Your task to perform on an android device: see creations saved in the google photos Image 0: 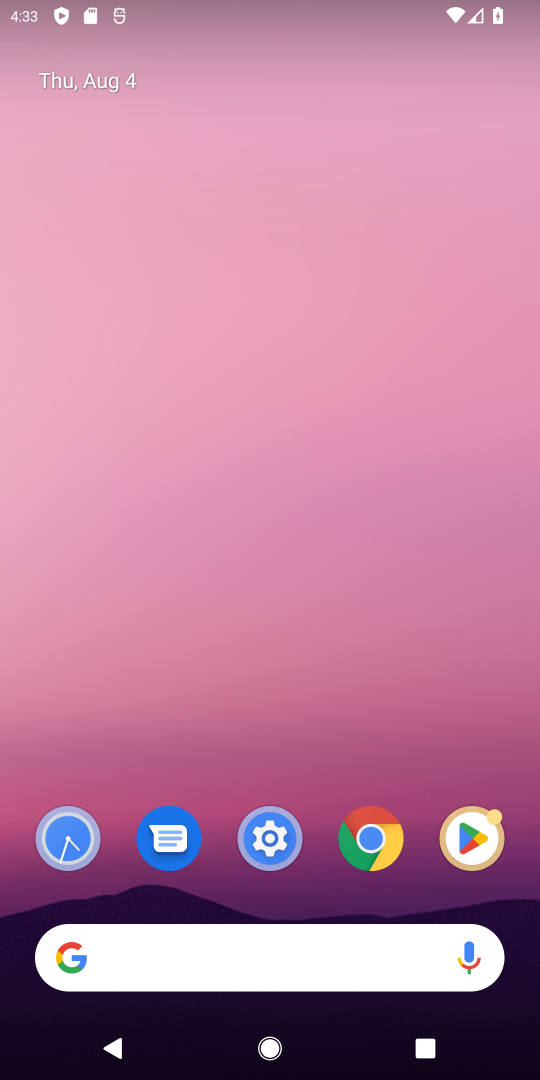
Step 0: drag from (228, 907) to (238, 173)
Your task to perform on an android device: see creations saved in the google photos Image 1: 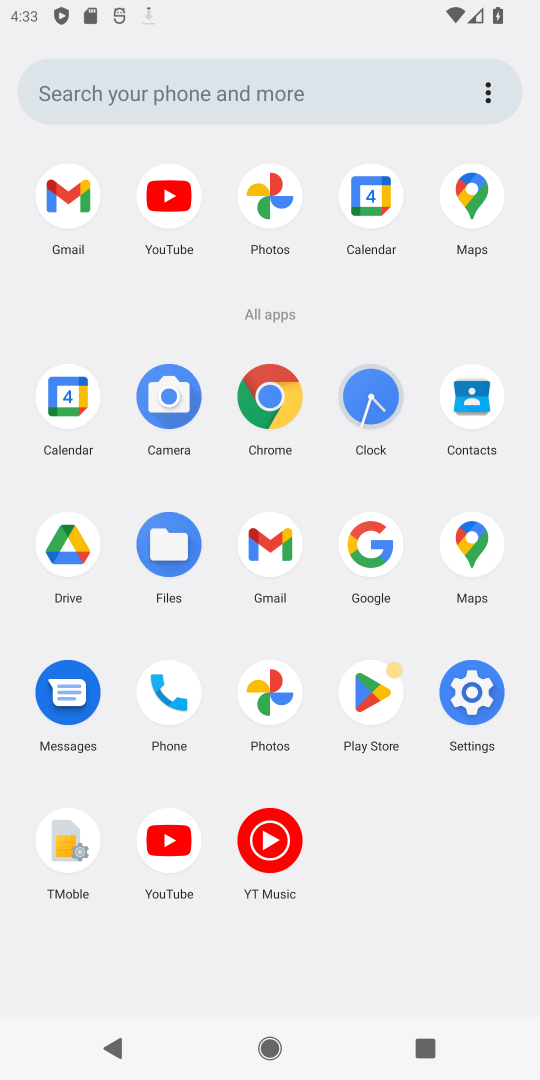
Step 1: click (290, 701)
Your task to perform on an android device: see creations saved in the google photos Image 2: 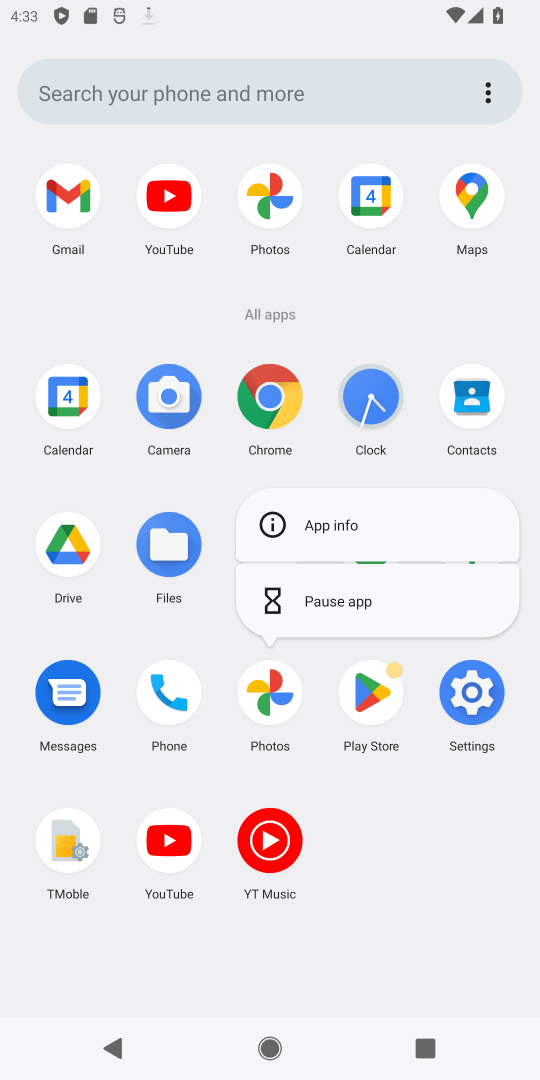
Step 2: click (286, 695)
Your task to perform on an android device: see creations saved in the google photos Image 3: 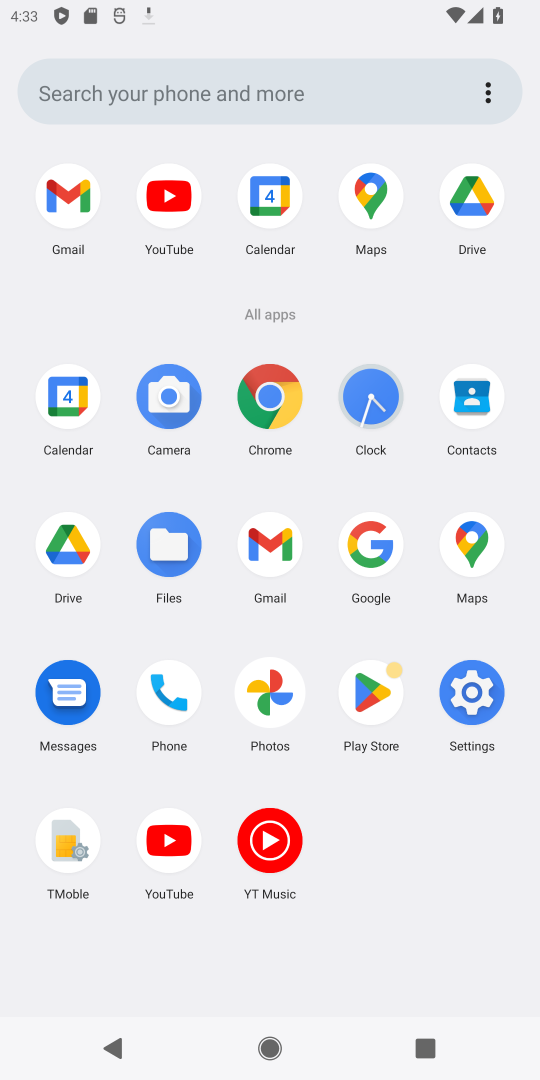
Step 3: click (285, 692)
Your task to perform on an android device: see creations saved in the google photos Image 4: 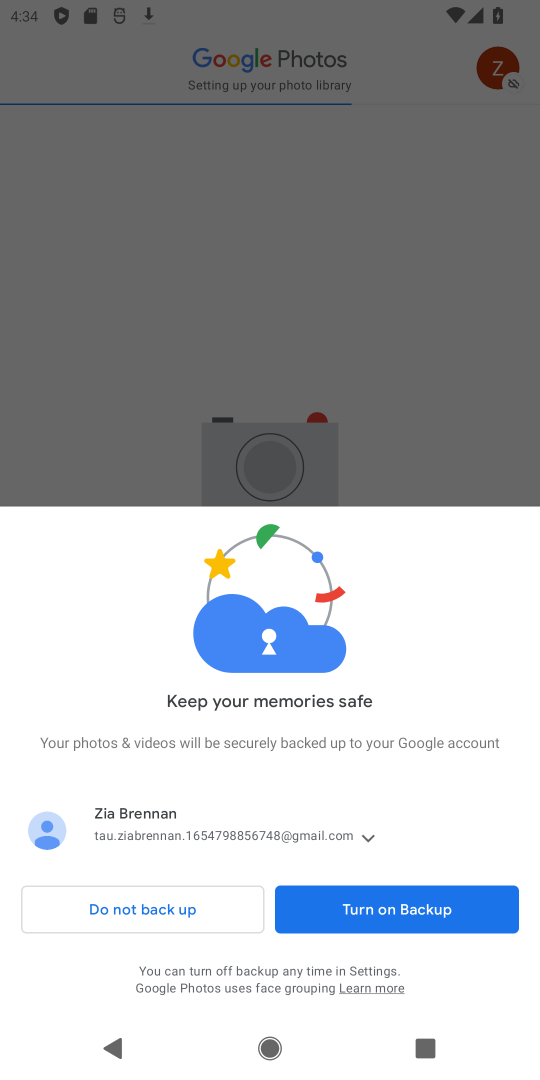
Step 4: click (397, 908)
Your task to perform on an android device: see creations saved in the google photos Image 5: 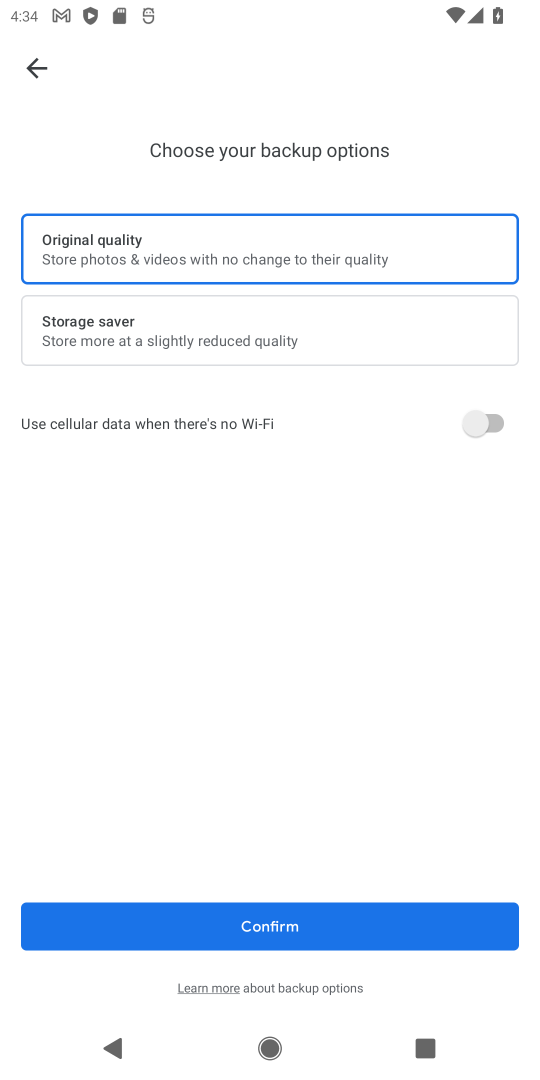
Step 5: click (287, 944)
Your task to perform on an android device: see creations saved in the google photos Image 6: 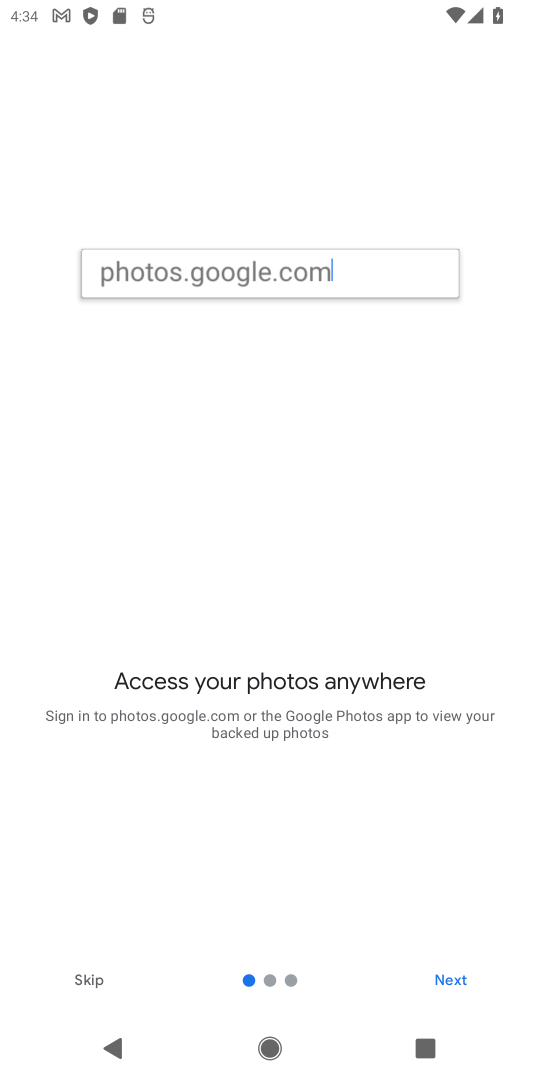
Step 6: click (446, 981)
Your task to perform on an android device: see creations saved in the google photos Image 7: 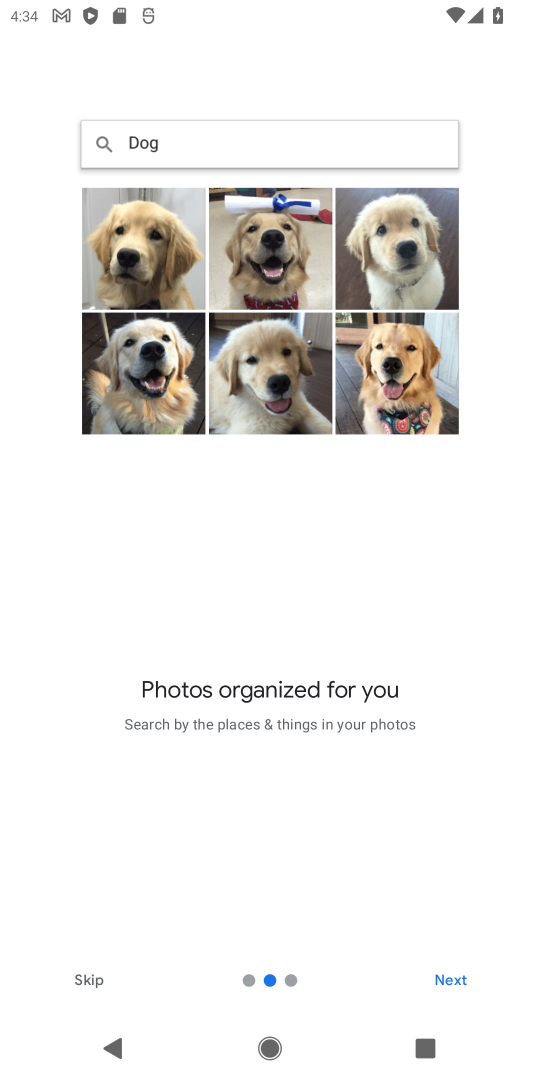
Step 7: click (446, 981)
Your task to perform on an android device: see creations saved in the google photos Image 8: 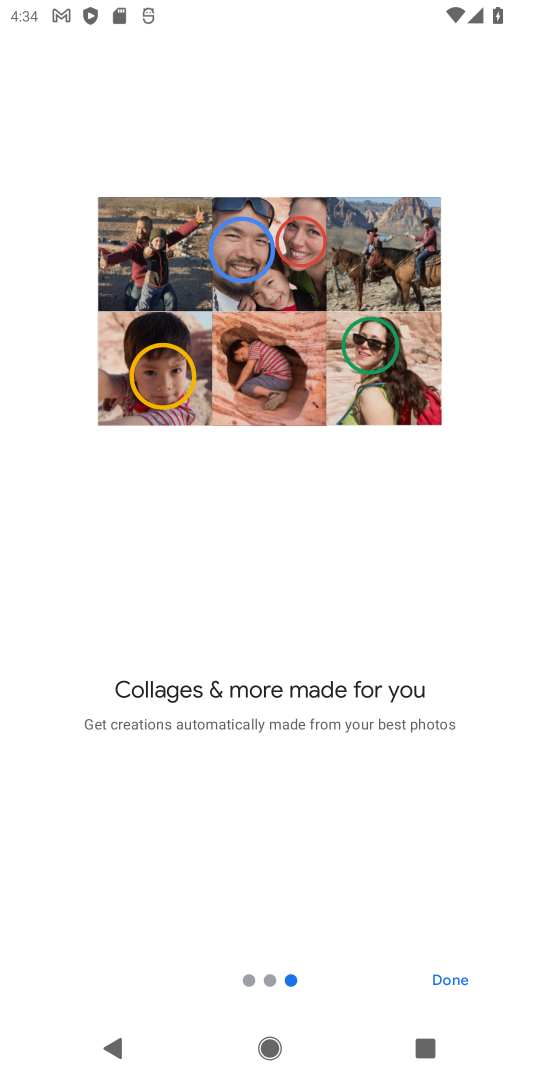
Step 8: click (446, 979)
Your task to perform on an android device: see creations saved in the google photos Image 9: 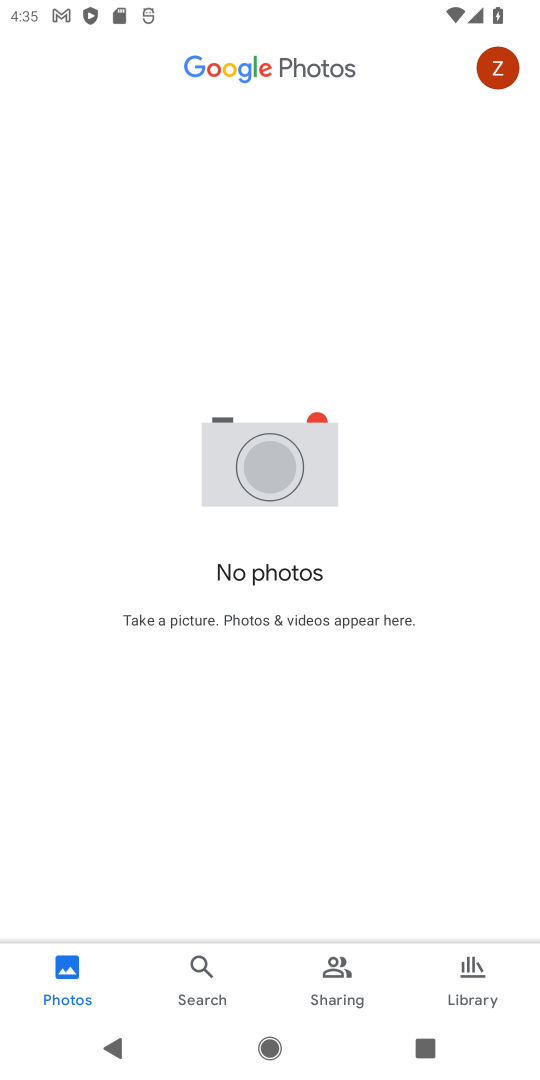
Step 9: task complete